Your task to perform on an android device: open app "Speedtest by Ookla" (install if not already installed) Image 0: 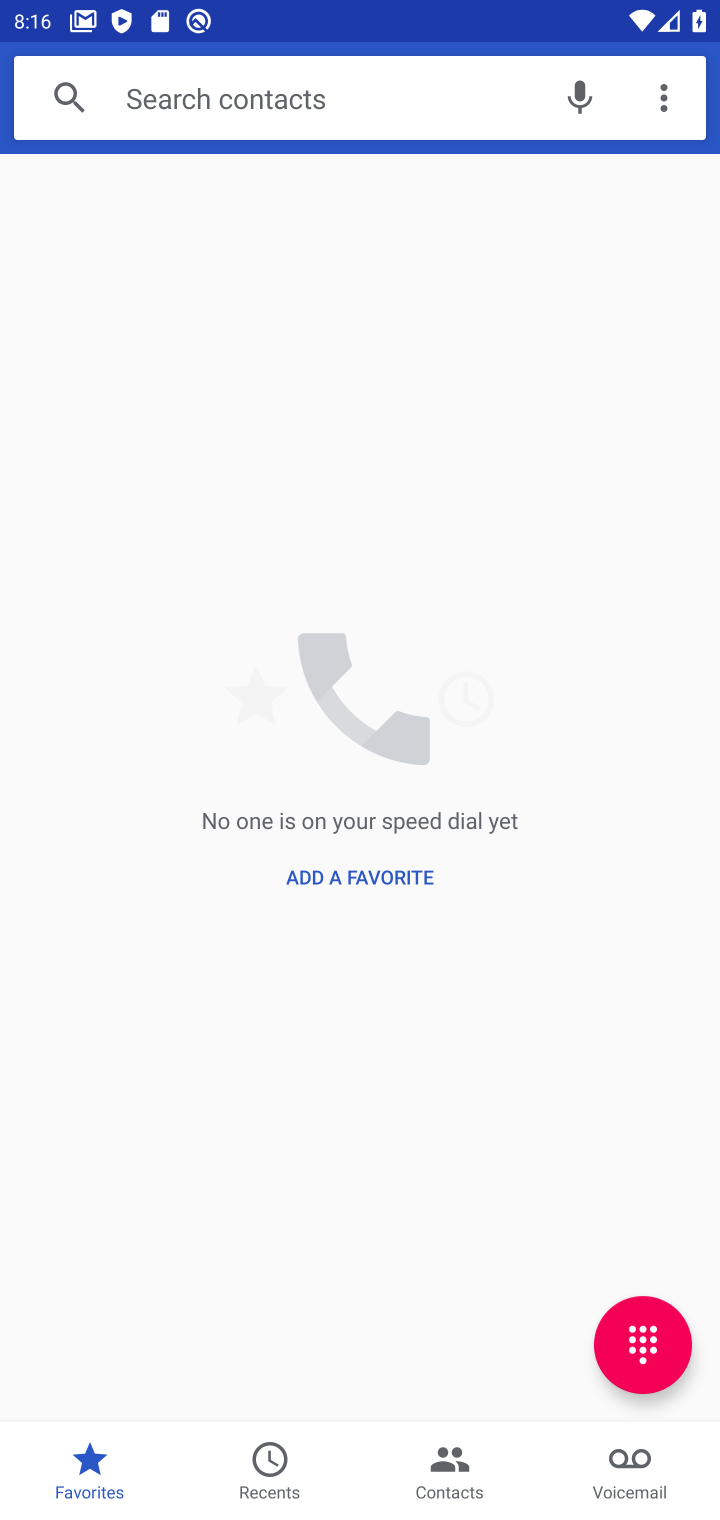
Step 0: press home button
Your task to perform on an android device: open app "Speedtest by Ookla" (install if not already installed) Image 1: 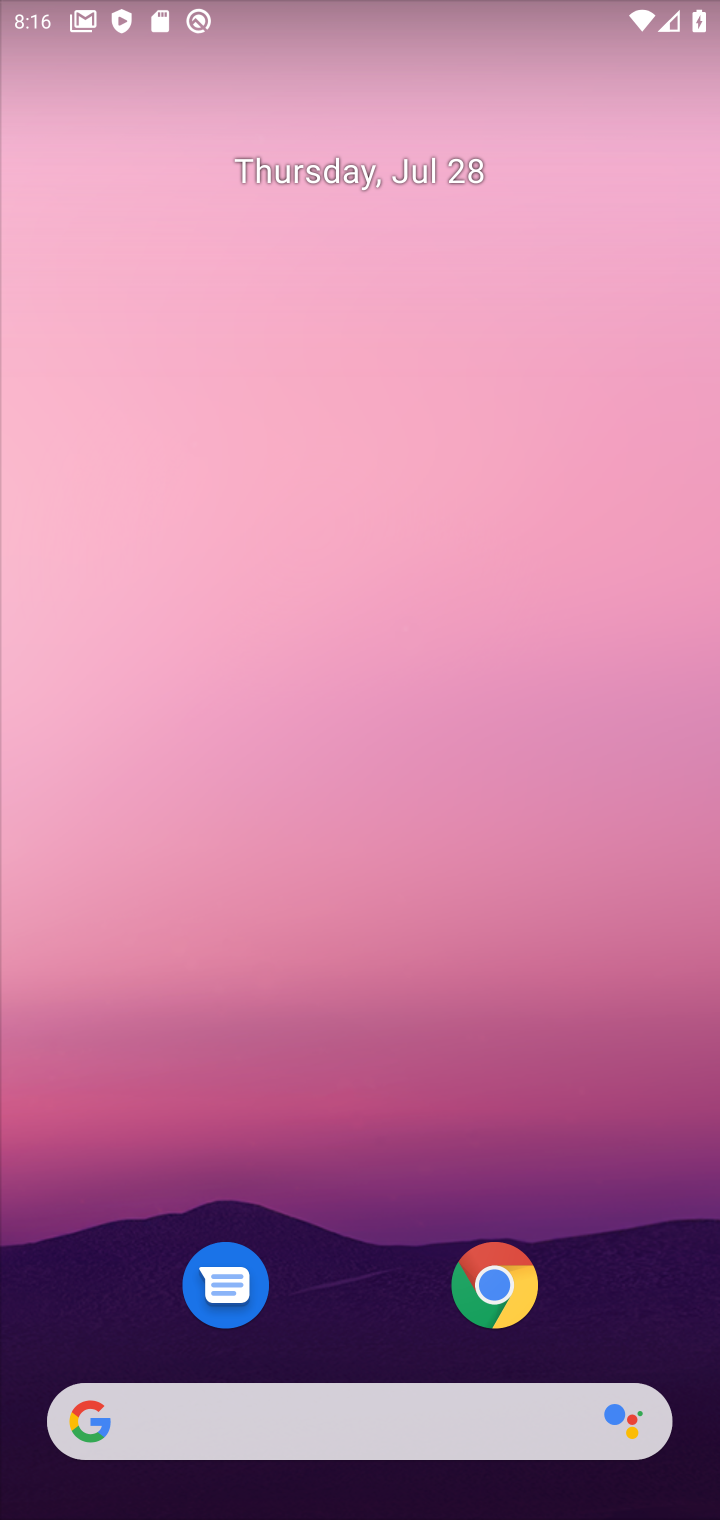
Step 1: drag from (317, 1144) to (409, 0)
Your task to perform on an android device: open app "Speedtest by Ookla" (install if not already installed) Image 2: 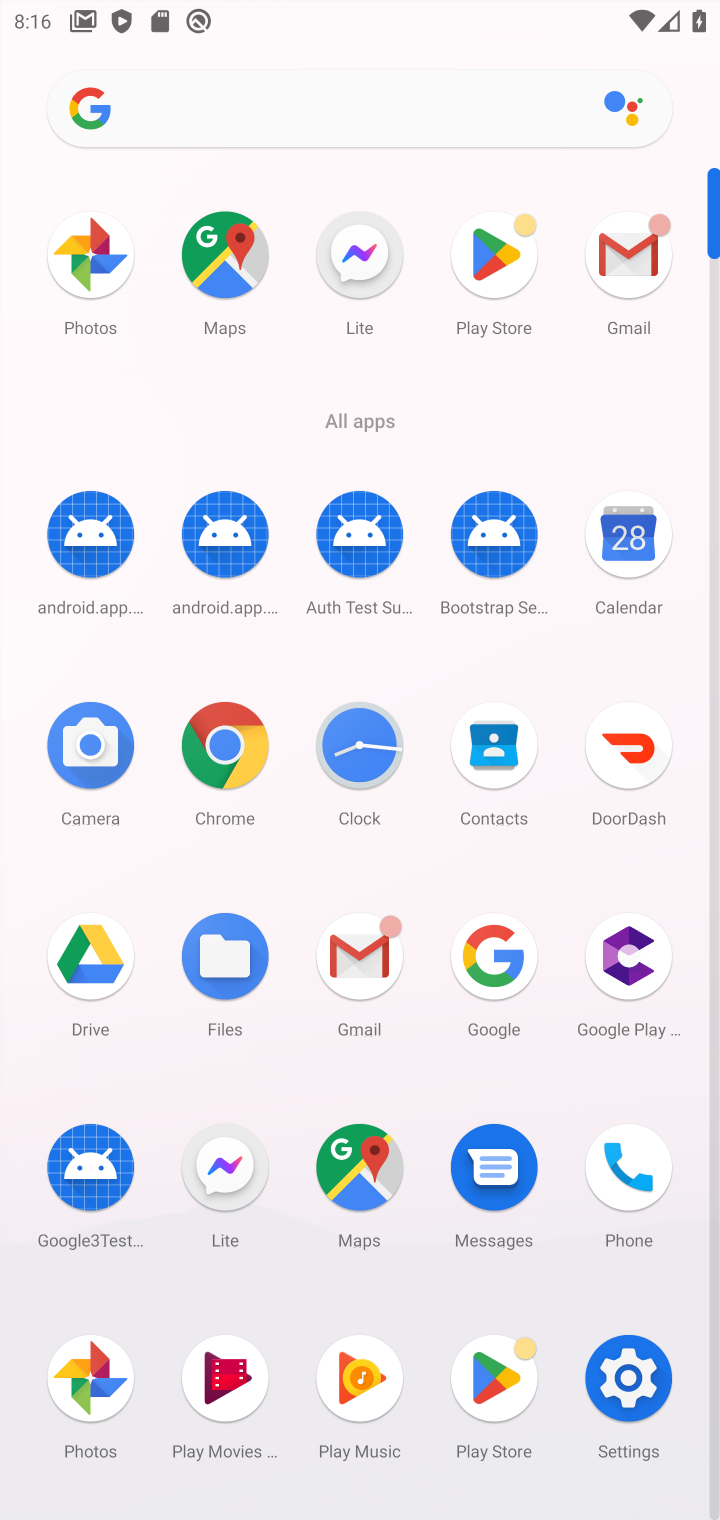
Step 2: click (496, 296)
Your task to perform on an android device: open app "Speedtest by Ookla" (install if not already installed) Image 3: 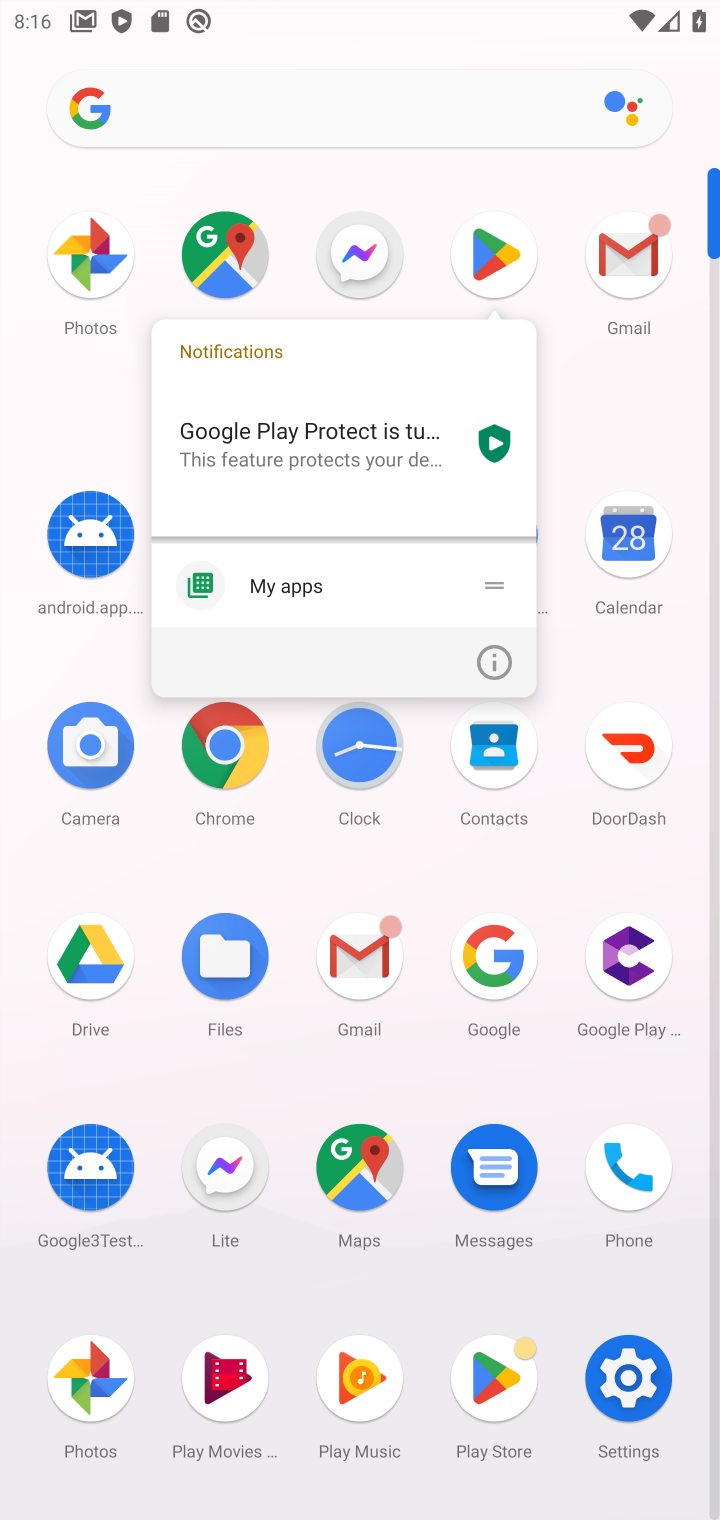
Step 3: click (496, 269)
Your task to perform on an android device: open app "Speedtest by Ookla" (install if not already installed) Image 4: 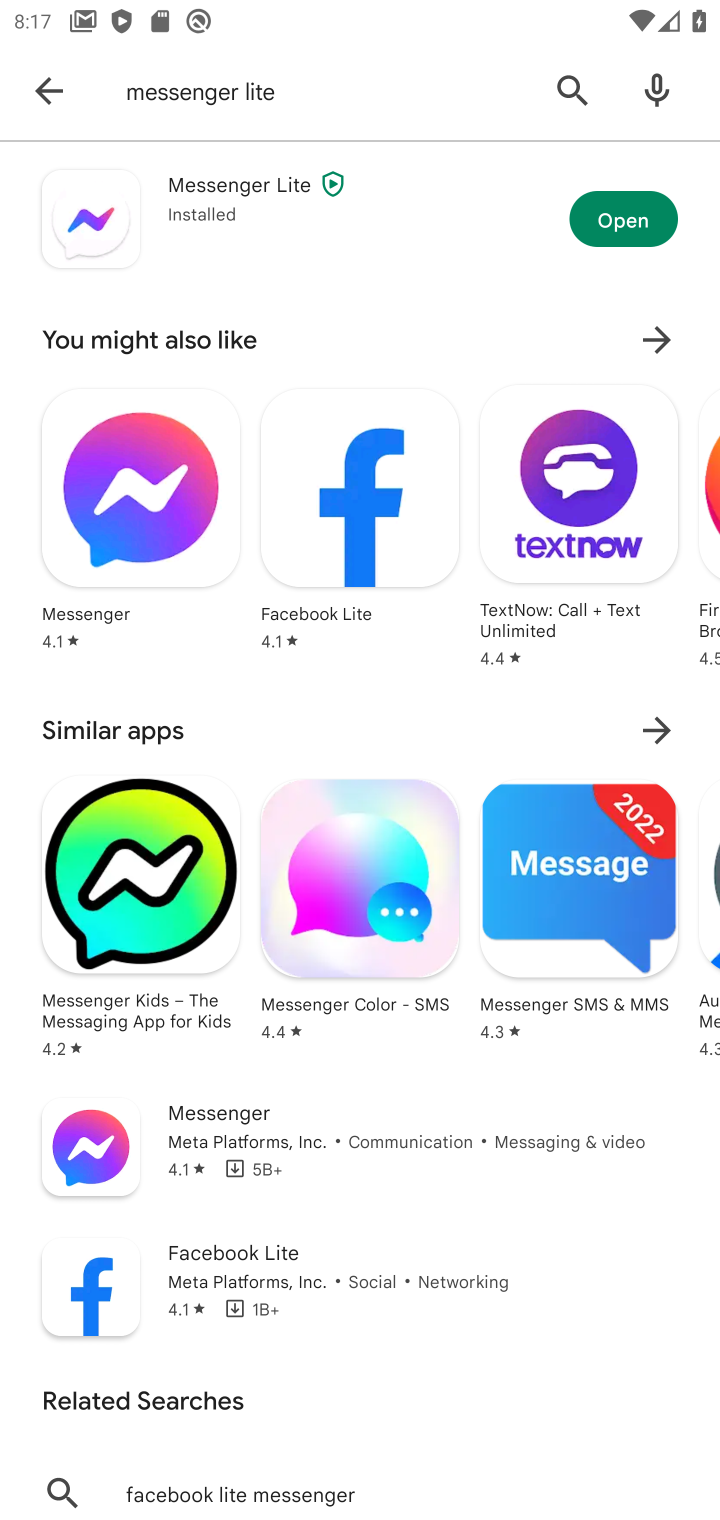
Step 4: click (583, 93)
Your task to perform on an android device: open app "Speedtest by Ookla" (install if not already installed) Image 5: 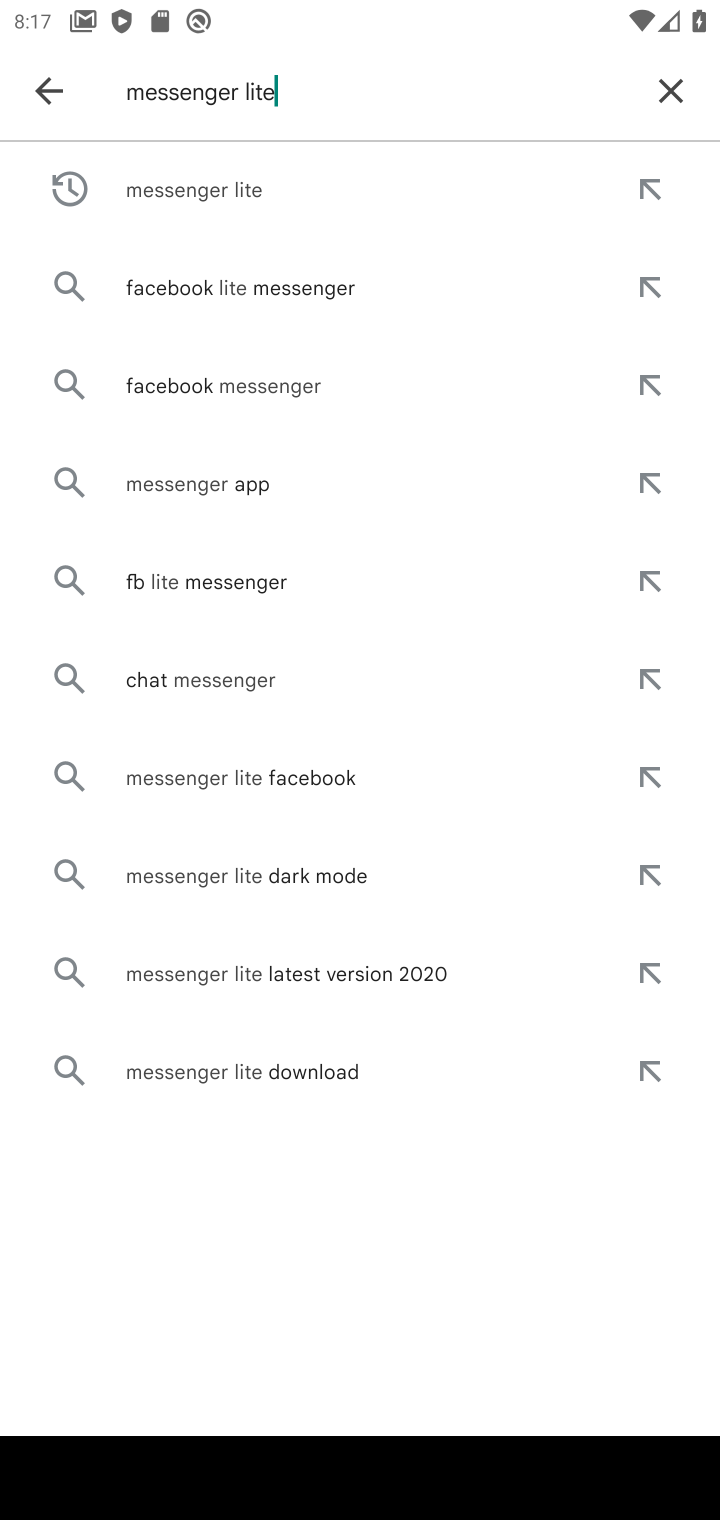
Step 5: click (666, 102)
Your task to perform on an android device: open app "Speedtest by Ookla" (install if not already installed) Image 6: 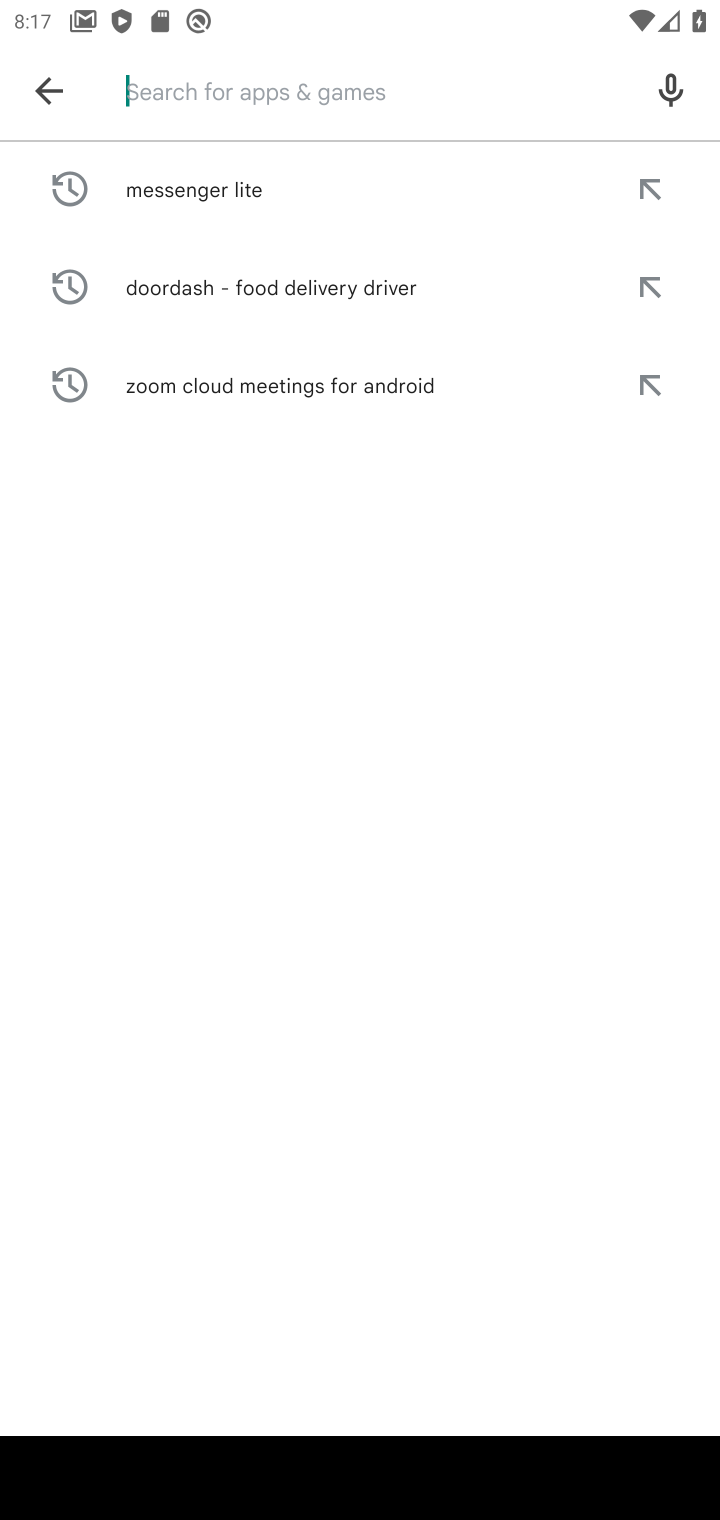
Step 6: type "Speedtest by Ookla"
Your task to perform on an android device: open app "Speedtest by Ookla" (install if not already installed) Image 7: 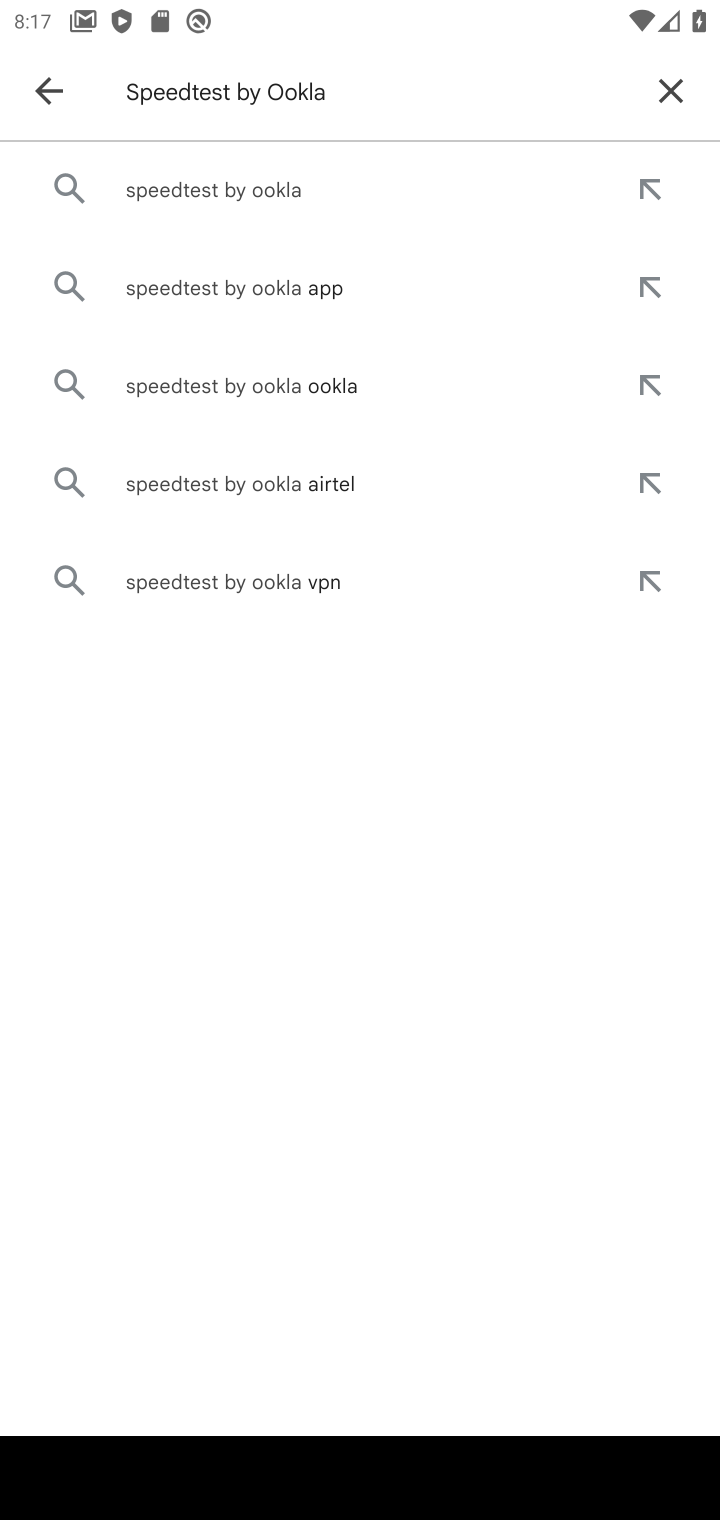
Step 7: click (253, 207)
Your task to perform on an android device: open app "Speedtest by Ookla" (install if not already installed) Image 8: 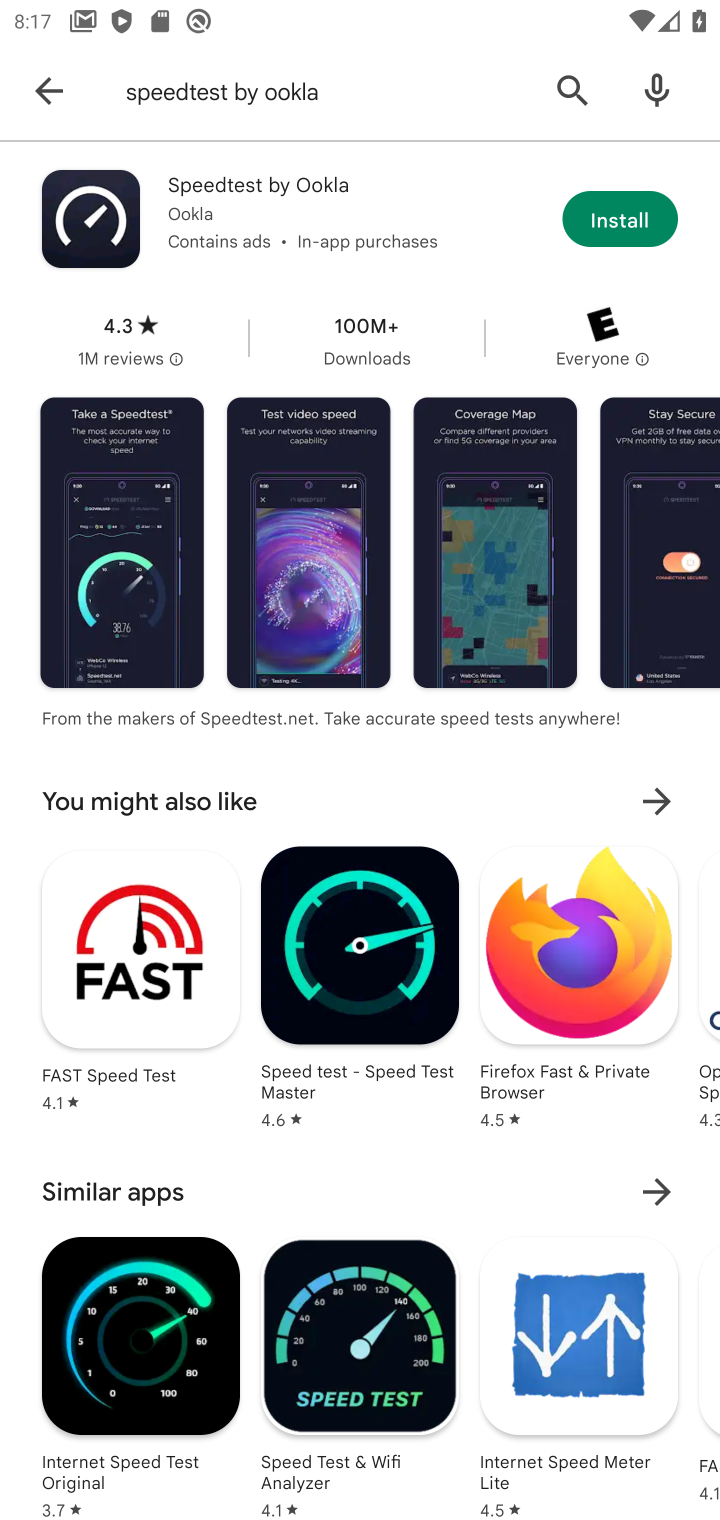
Step 8: click (620, 228)
Your task to perform on an android device: open app "Speedtest by Ookla" (install if not already installed) Image 9: 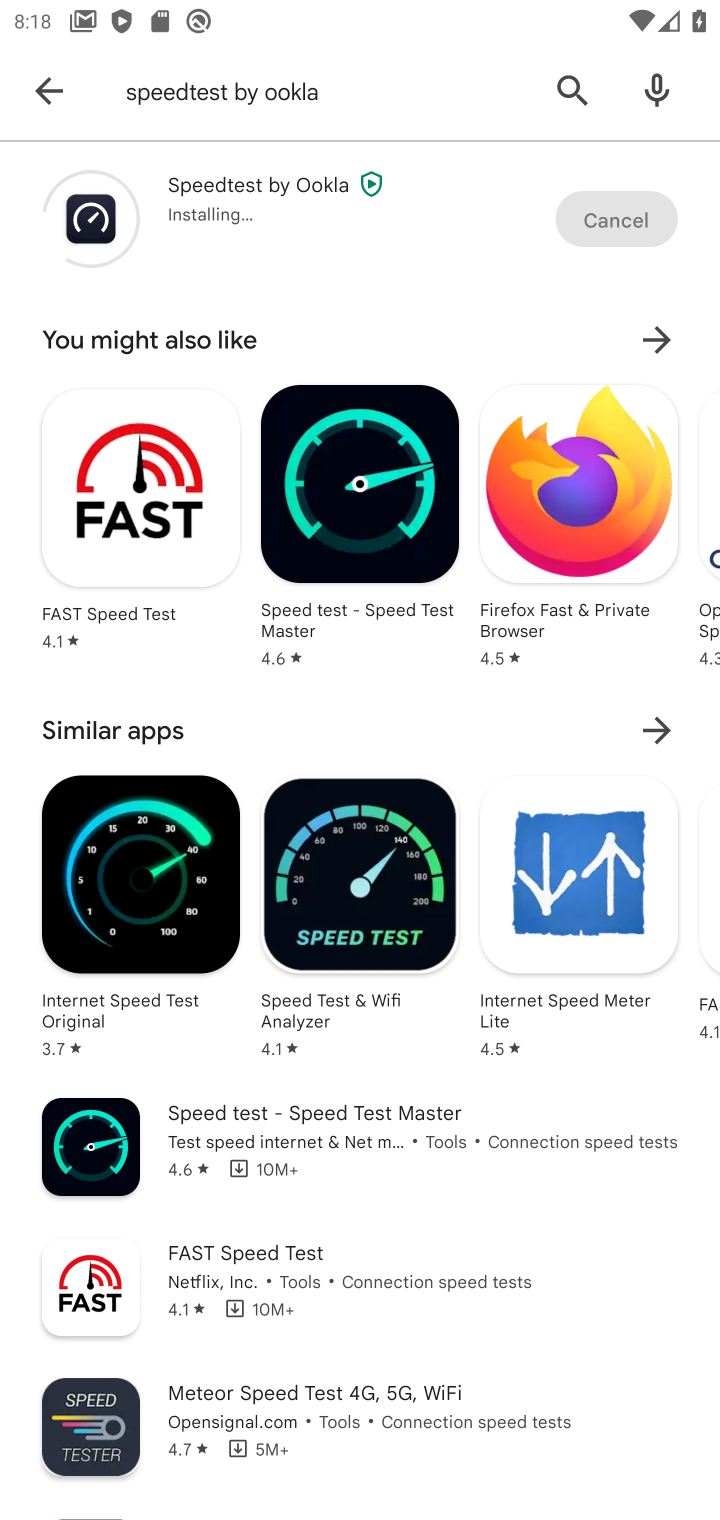
Step 9: drag from (351, 889) to (412, 1078)
Your task to perform on an android device: open app "Speedtest by Ookla" (install if not already installed) Image 10: 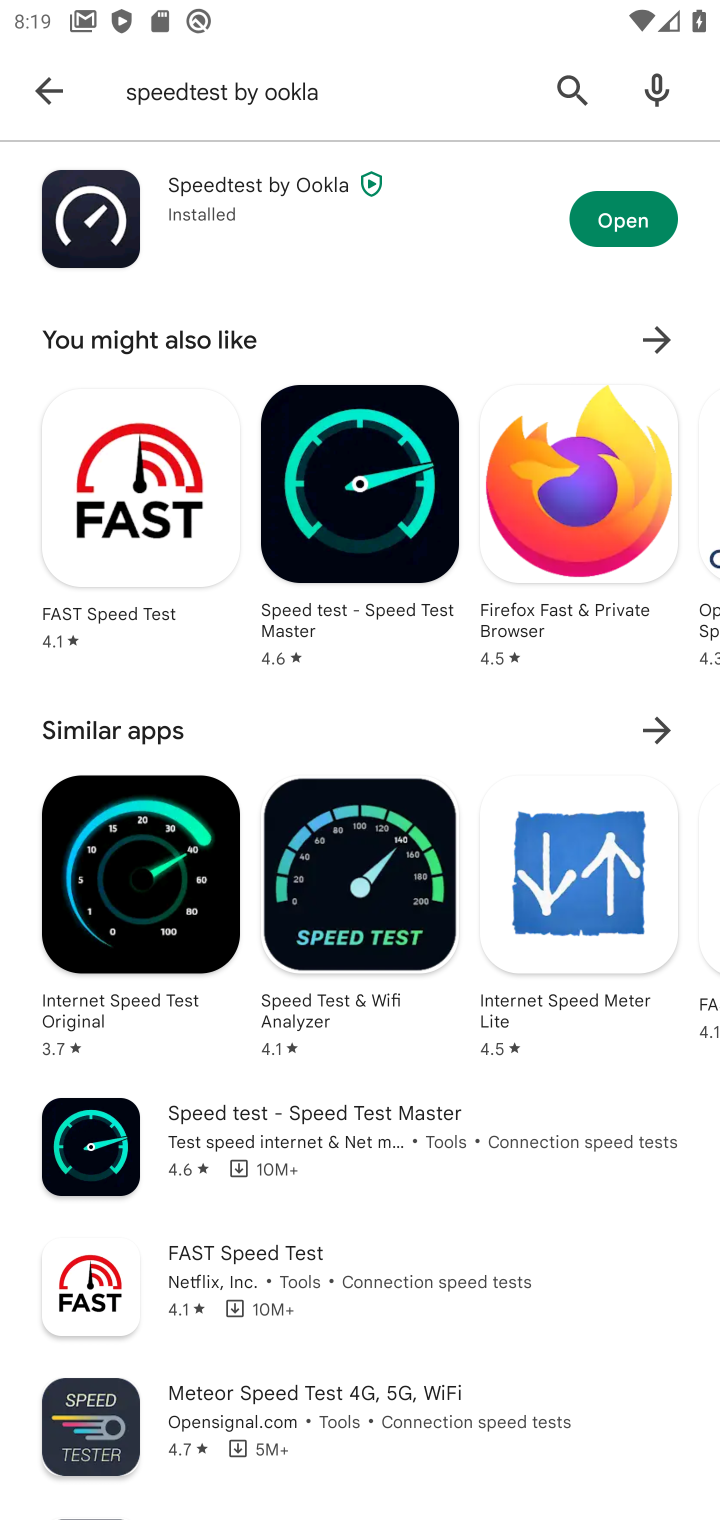
Step 10: click (646, 217)
Your task to perform on an android device: open app "Speedtest by Ookla" (install if not already installed) Image 11: 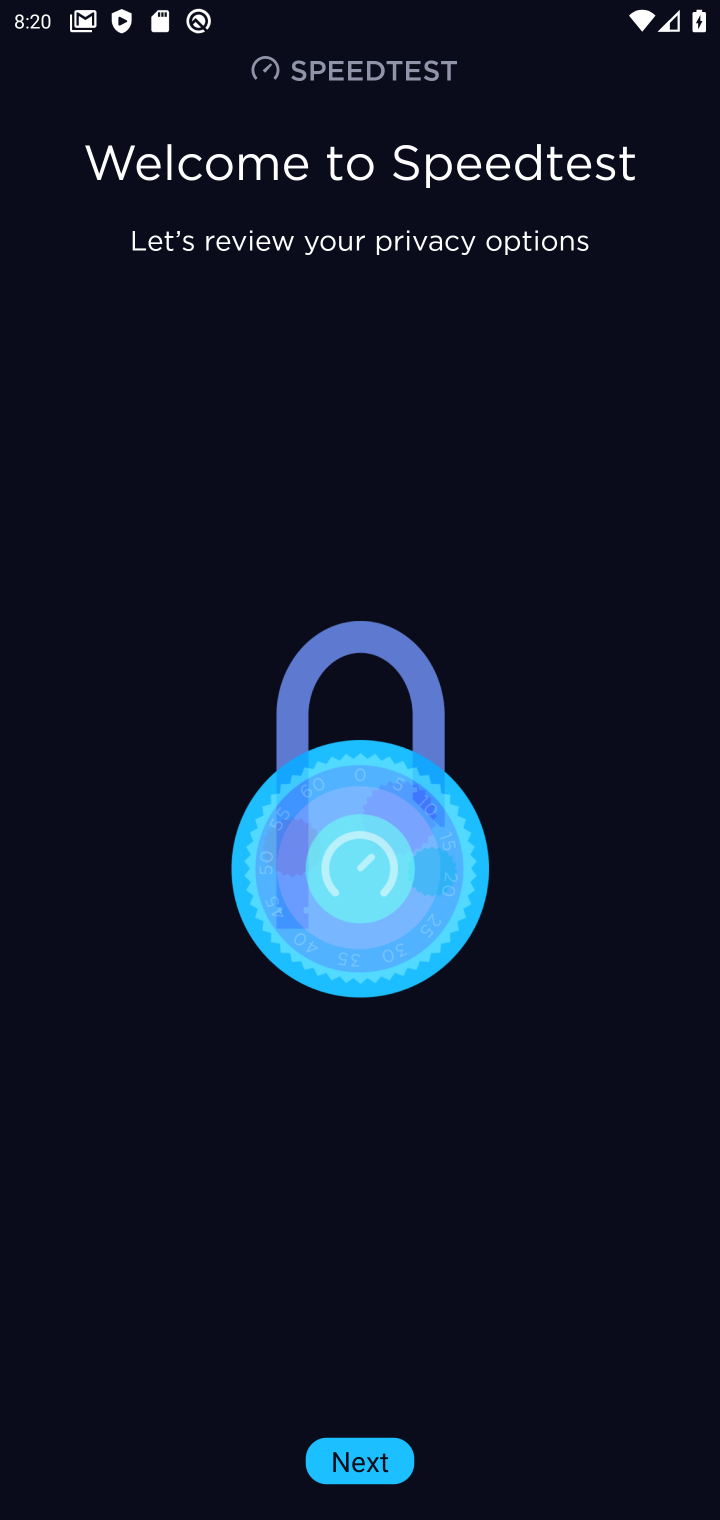
Step 11: task complete